Your task to perform on an android device: turn off translation in the chrome app Image 0: 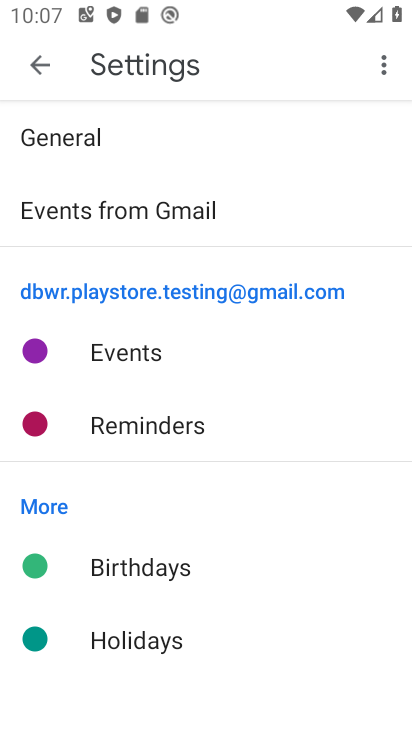
Step 0: press home button
Your task to perform on an android device: turn off translation in the chrome app Image 1: 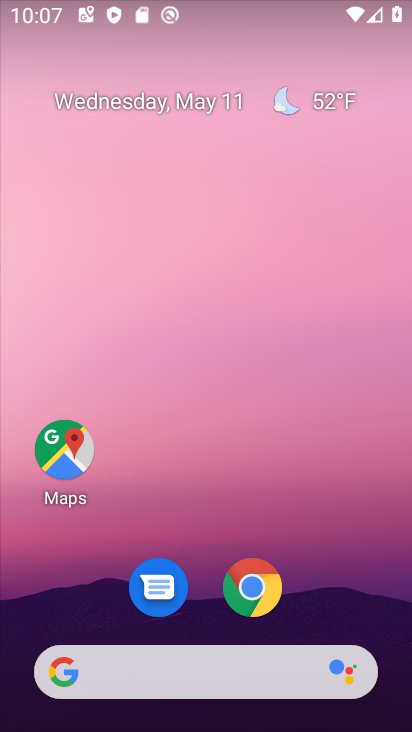
Step 1: drag from (199, 709) to (146, 182)
Your task to perform on an android device: turn off translation in the chrome app Image 2: 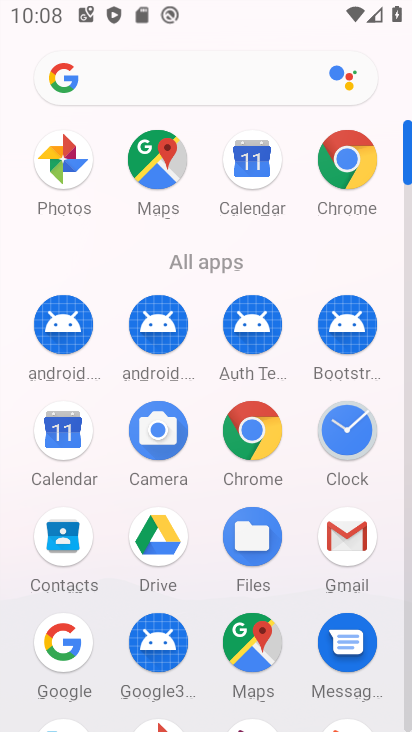
Step 2: click (340, 182)
Your task to perform on an android device: turn off translation in the chrome app Image 3: 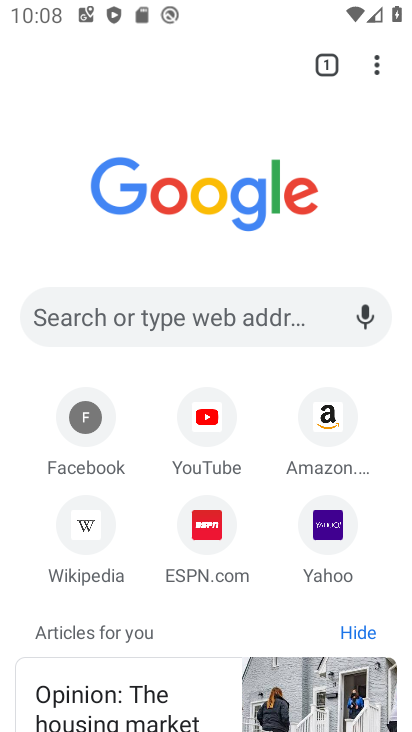
Step 3: click (370, 97)
Your task to perform on an android device: turn off translation in the chrome app Image 4: 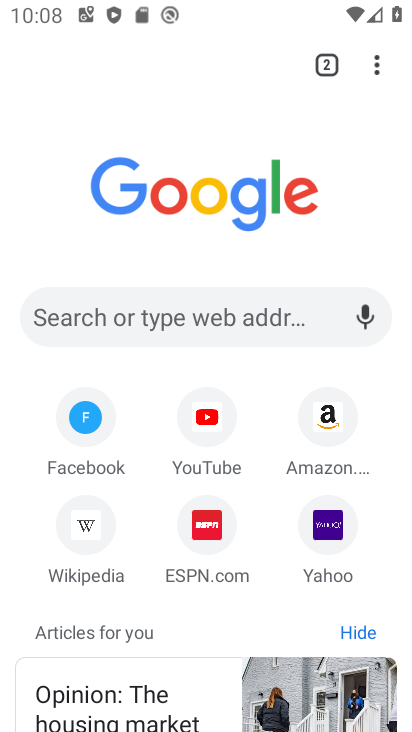
Step 4: click (369, 75)
Your task to perform on an android device: turn off translation in the chrome app Image 5: 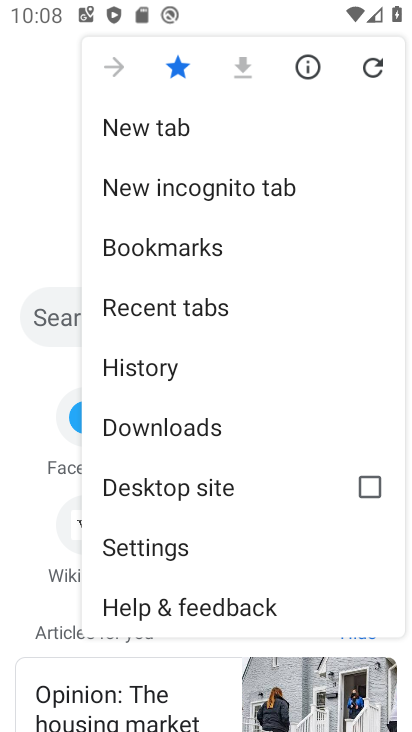
Step 5: click (175, 542)
Your task to perform on an android device: turn off translation in the chrome app Image 6: 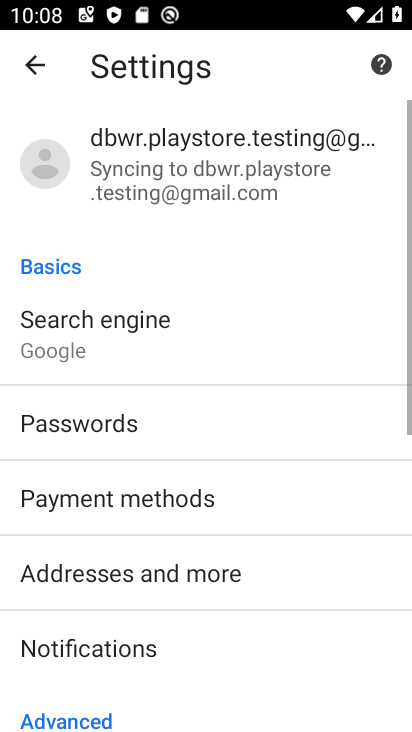
Step 6: drag from (240, 660) to (264, 272)
Your task to perform on an android device: turn off translation in the chrome app Image 7: 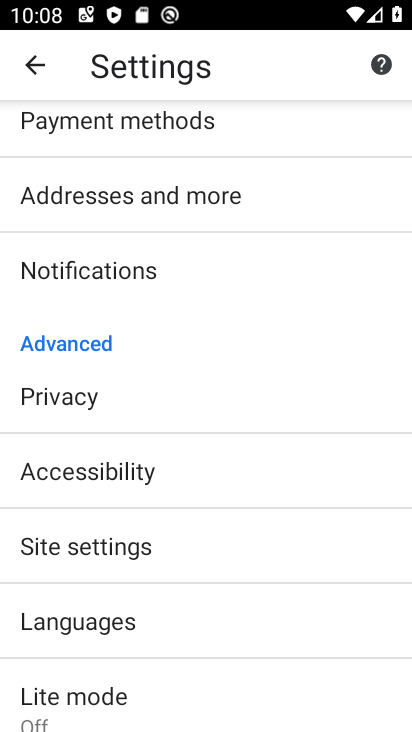
Step 7: drag from (96, 693) to (123, 602)
Your task to perform on an android device: turn off translation in the chrome app Image 8: 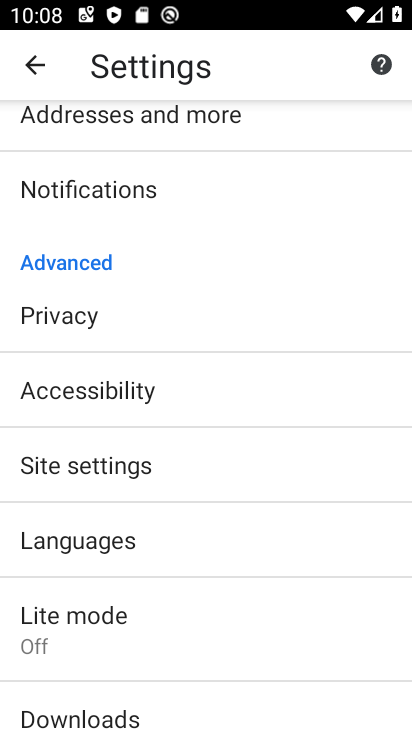
Step 8: click (105, 553)
Your task to perform on an android device: turn off translation in the chrome app Image 9: 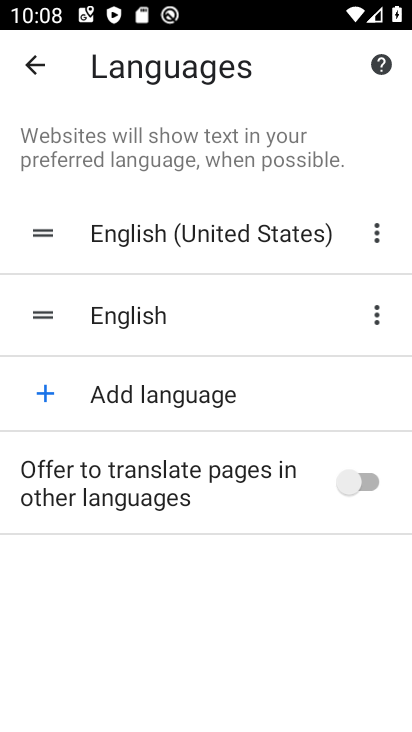
Step 9: click (346, 495)
Your task to perform on an android device: turn off translation in the chrome app Image 10: 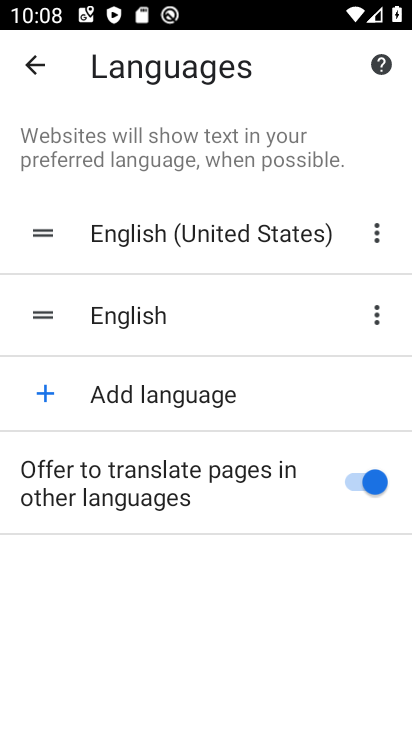
Step 10: click (343, 495)
Your task to perform on an android device: turn off translation in the chrome app Image 11: 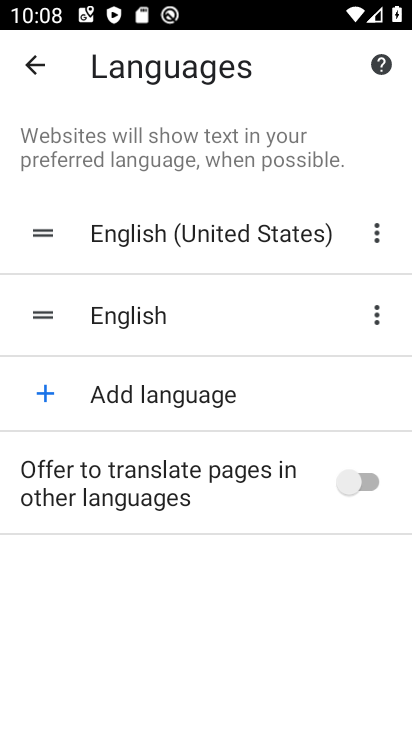
Step 11: task complete